Your task to perform on an android device: toggle show notifications on the lock screen Image 0: 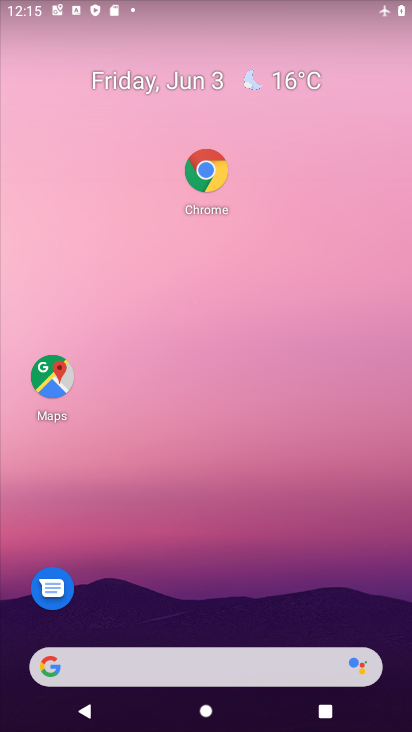
Step 0: drag from (241, 399) to (258, 318)
Your task to perform on an android device: toggle show notifications on the lock screen Image 1: 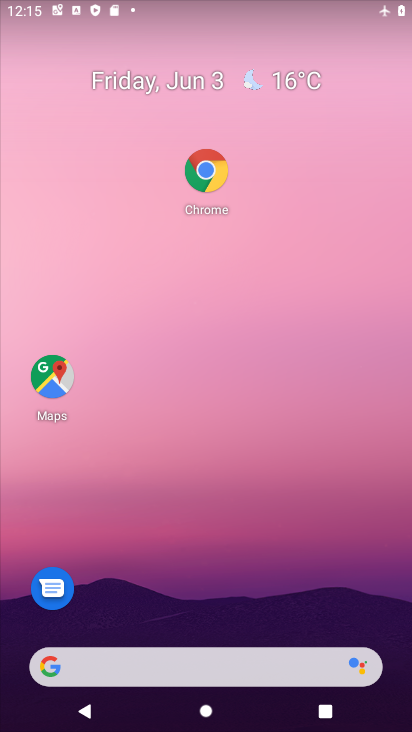
Step 1: drag from (252, 612) to (290, 278)
Your task to perform on an android device: toggle show notifications on the lock screen Image 2: 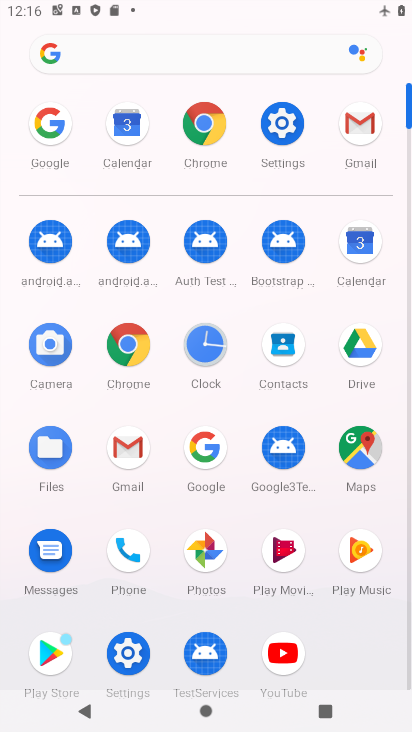
Step 2: click (286, 138)
Your task to perform on an android device: toggle show notifications on the lock screen Image 3: 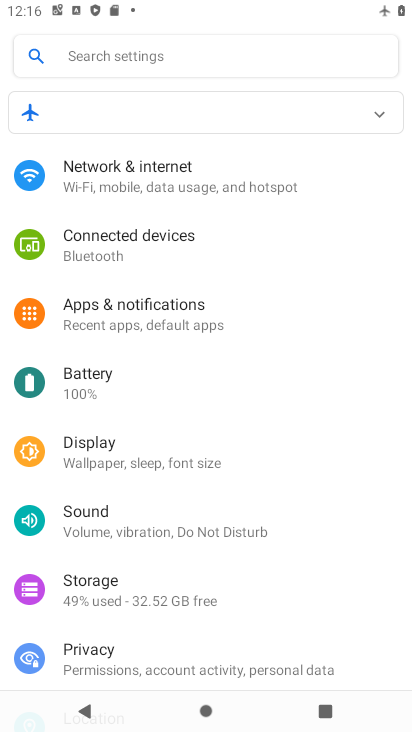
Step 3: drag from (176, 546) to (202, 395)
Your task to perform on an android device: toggle show notifications on the lock screen Image 4: 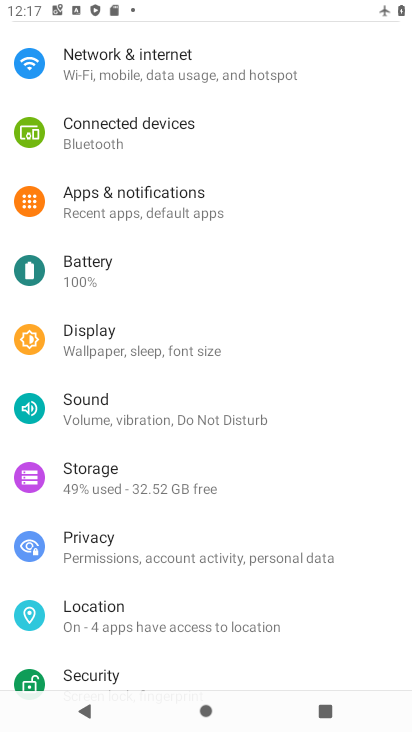
Step 4: click (214, 207)
Your task to perform on an android device: toggle show notifications on the lock screen Image 5: 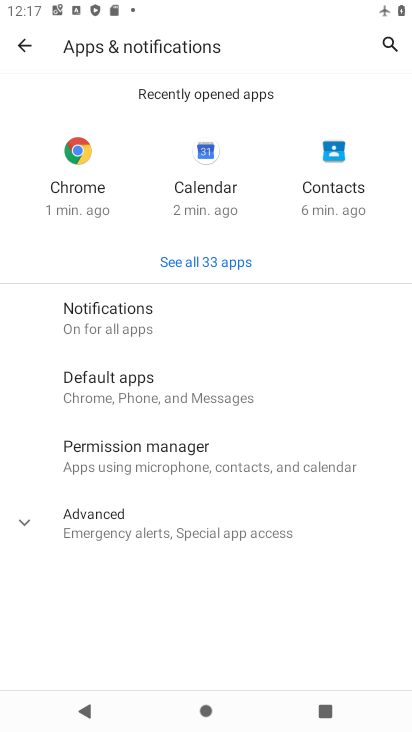
Step 5: click (215, 313)
Your task to perform on an android device: toggle show notifications on the lock screen Image 6: 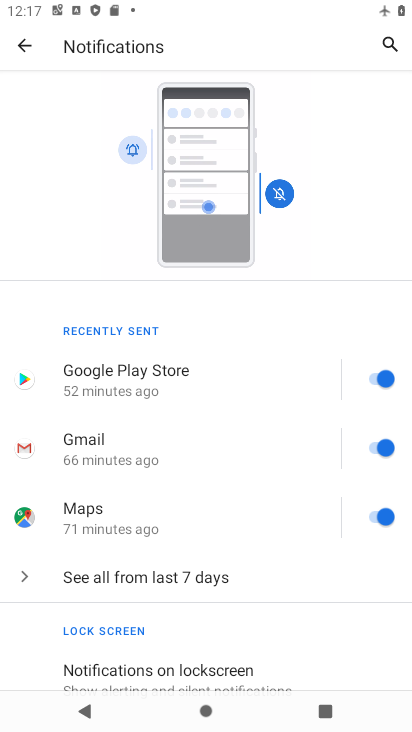
Step 6: click (379, 379)
Your task to perform on an android device: toggle show notifications on the lock screen Image 7: 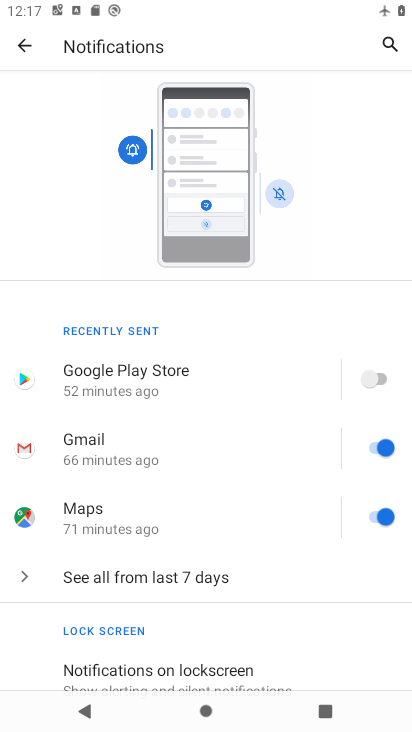
Step 7: task complete